Your task to perform on an android device: Open calendar and show me the fourth week of next month Image 0: 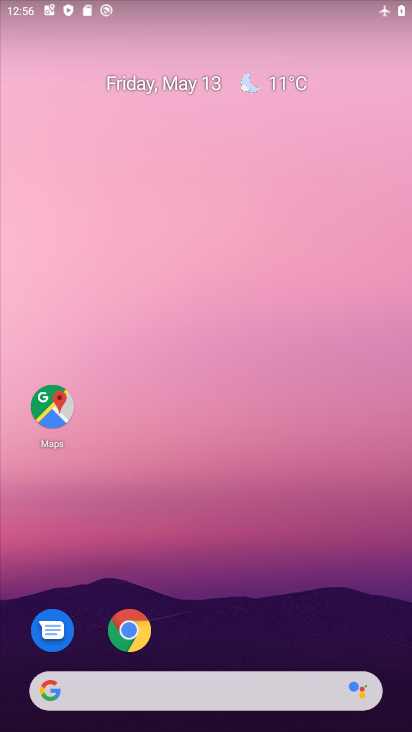
Step 0: drag from (316, 641) to (354, 8)
Your task to perform on an android device: Open calendar and show me the fourth week of next month Image 1: 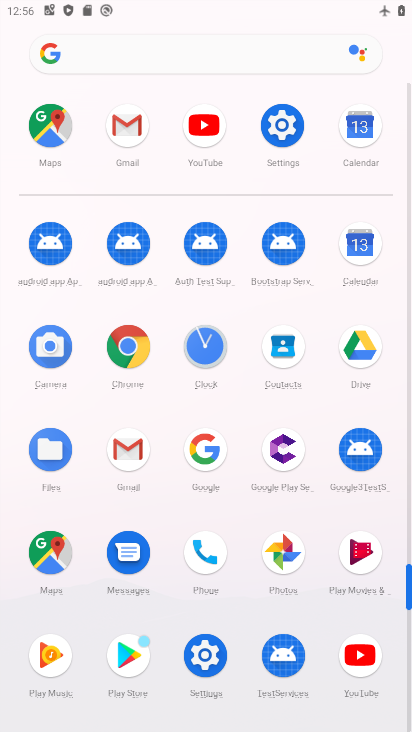
Step 1: click (356, 135)
Your task to perform on an android device: Open calendar and show me the fourth week of next month Image 2: 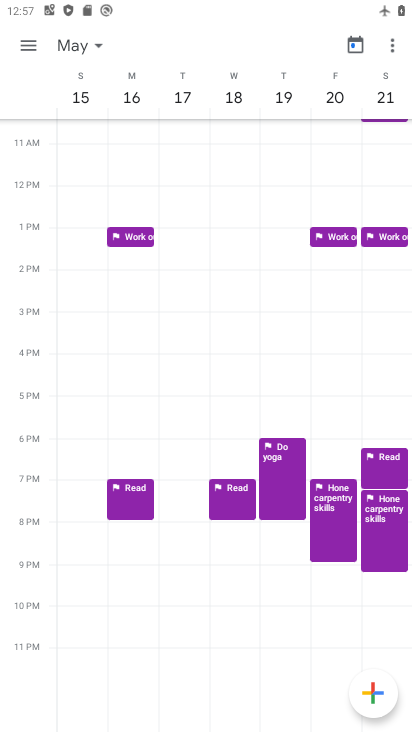
Step 2: click (92, 45)
Your task to perform on an android device: Open calendar and show me the fourth week of next month Image 3: 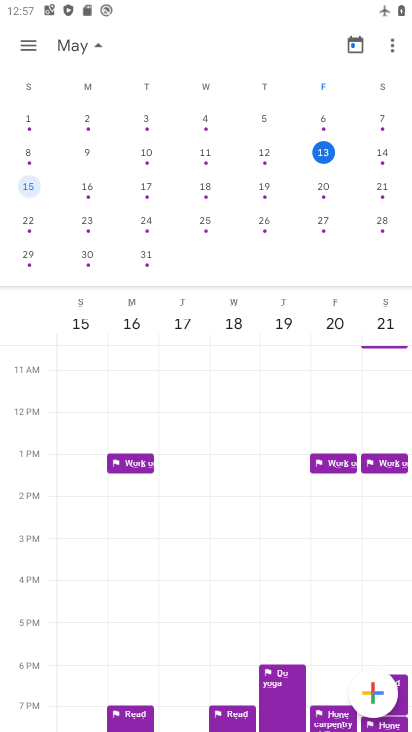
Step 3: task complete